Your task to perform on an android device: turn on notifications settings in the gmail app Image 0: 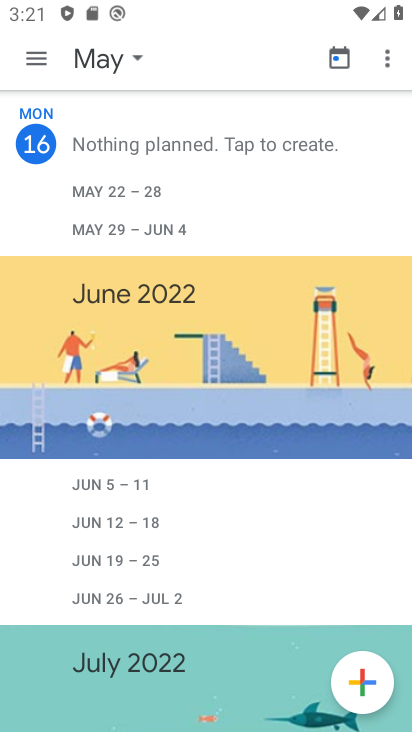
Step 0: press home button
Your task to perform on an android device: turn on notifications settings in the gmail app Image 1: 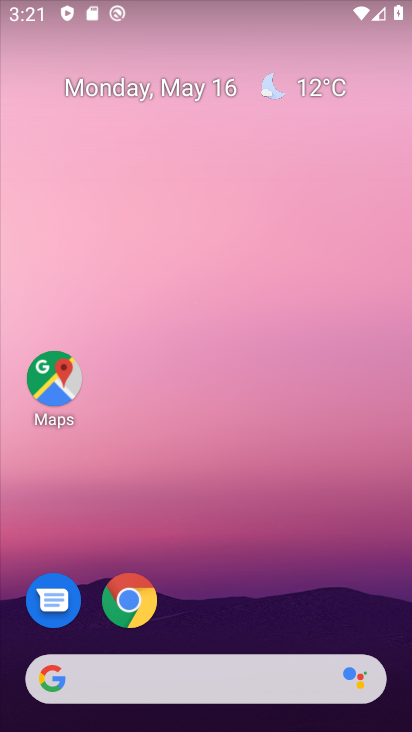
Step 1: drag from (175, 644) to (147, 109)
Your task to perform on an android device: turn on notifications settings in the gmail app Image 2: 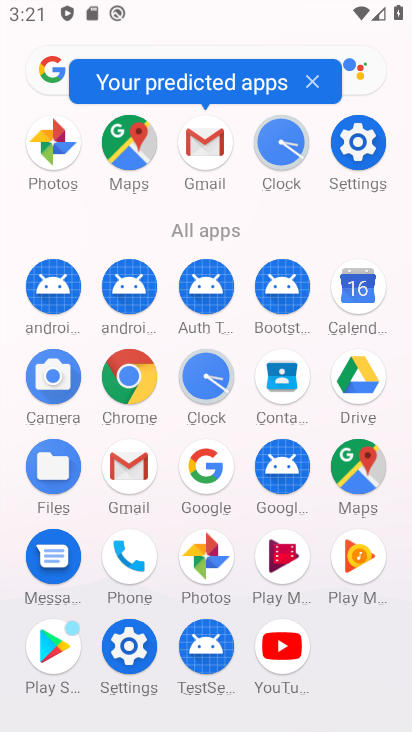
Step 2: click (206, 139)
Your task to perform on an android device: turn on notifications settings in the gmail app Image 3: 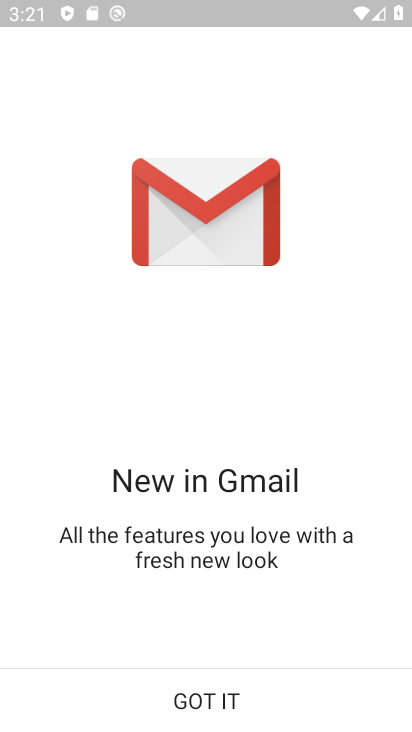
Step 3: click (196, 703)
Your task to perform on an android device: turn on notifications settings in the gmail app Image 4: 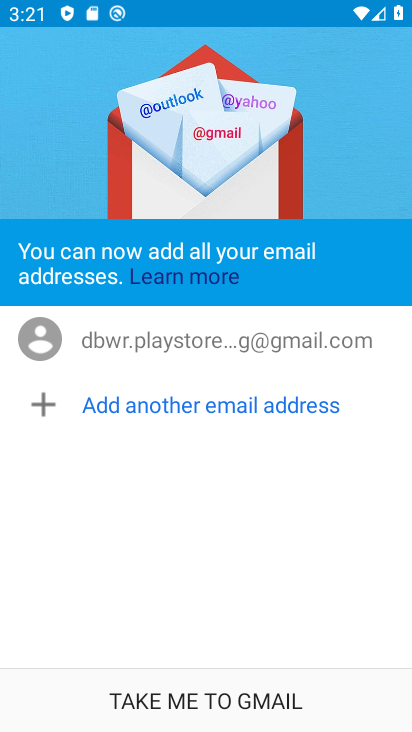
Step 4: click (197, 704)
Your task to perform on an android device: turn on notifications settings in the gmail app Image 5: 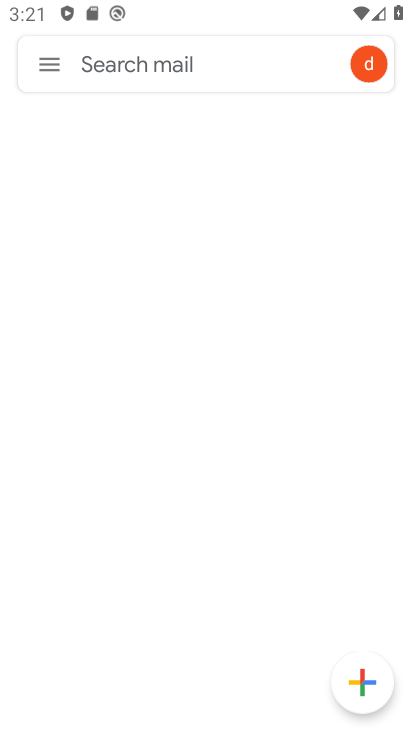
Step 5: click (43, 55)
Your task to perform on an android device: turn on notifications settings in the gmail app Image 6: 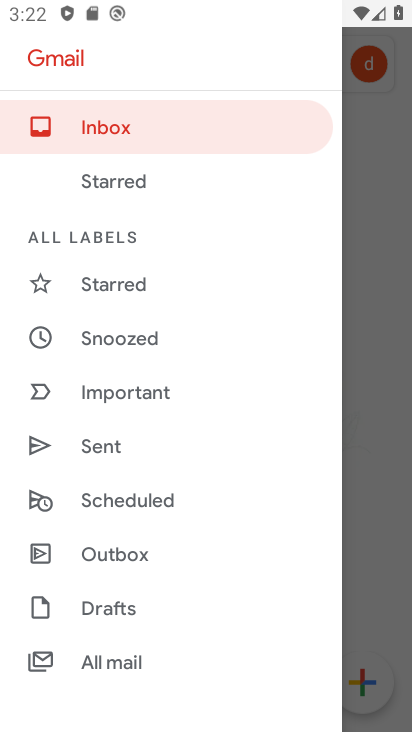
Step 6: drag from (119, 691) to (104, 197)
Your task to perform on an android device: turn on notifications settings in the gmail app Image 7: 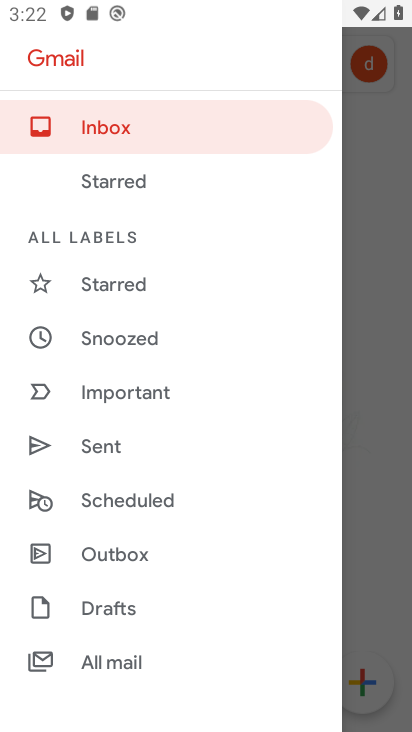
Step 7: drag from (103, 640) to (103, 409)
Your task to perform on an android device: turn on notifications settings in the gmail app Image 8: 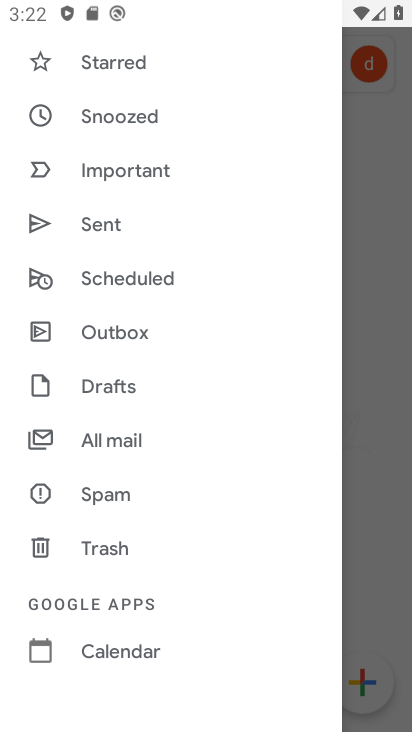
Step 8: drag from (94, 497) to (136, 269)
Your task to perform on an android device: turn on notifications settings in the gmail app Image 9: 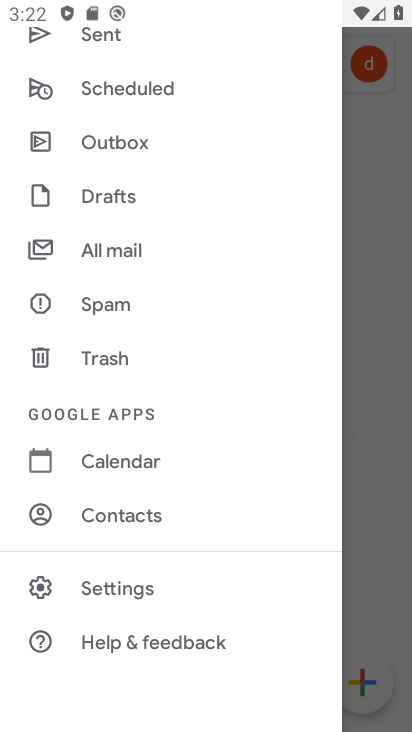
Step 9: click (100, 594)
Your task to perform on an android device: turn on notifications settings in the gmail app Image 10: 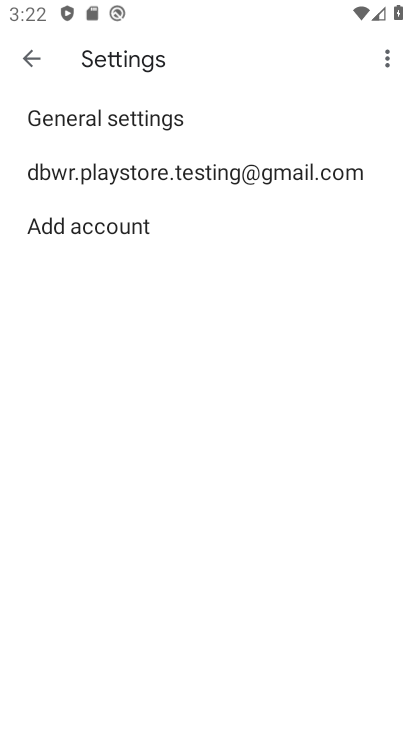
Step 10: click (106, 115)
Your task to perform on an android device: turn on notifications settings in the gmail app Image 11: 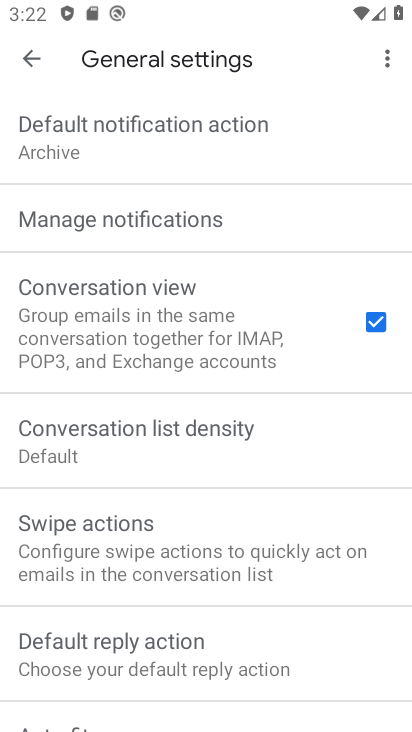
Step 11: click (78, 223)
Your task to perform on an android device: turn on notifications settings in the gmail app Image 12: 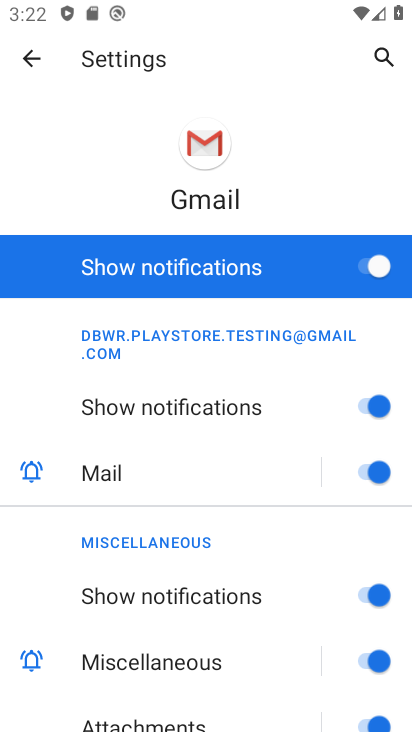
Step 12: task complete